Your task to perform on an android device: Add "logitech g910" to the cart on newegg Image 0: 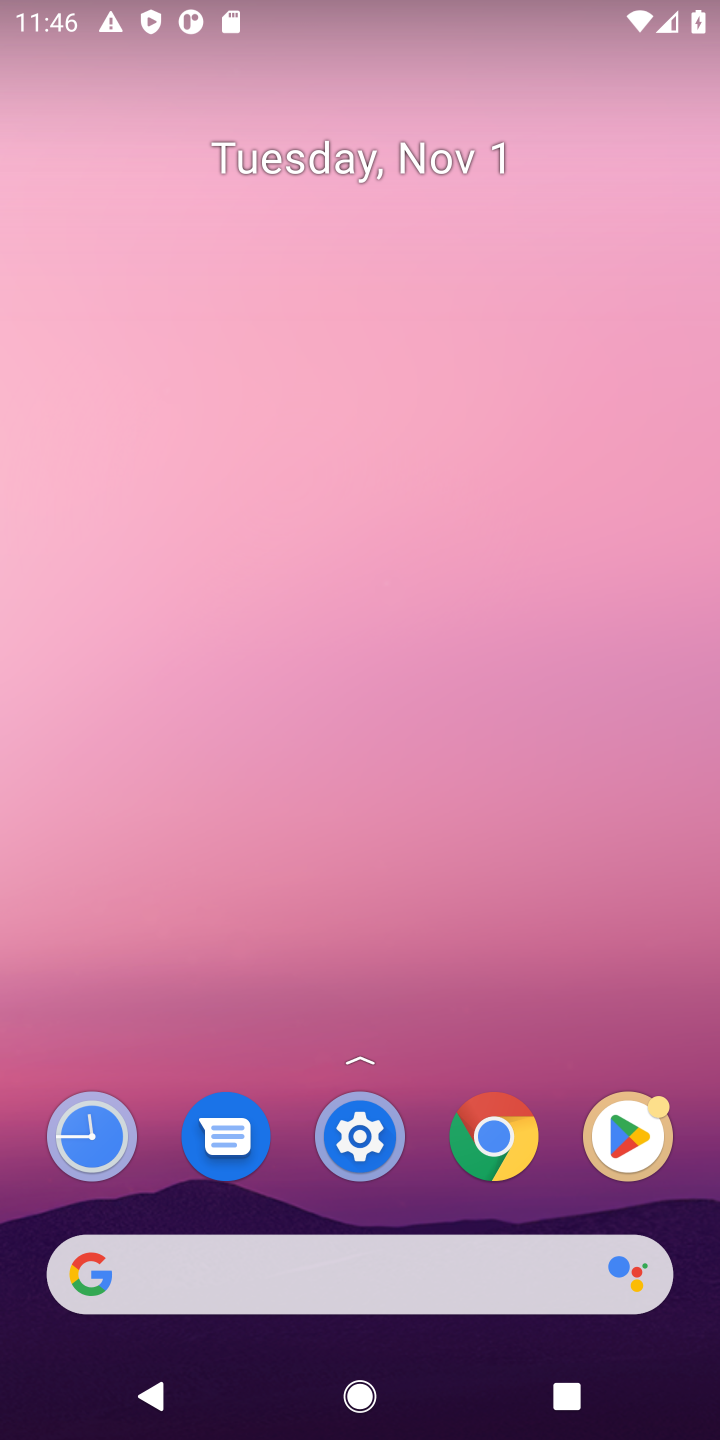
Step 0: click (489, 1134)
Your task to perform on an android device: Add "logitech g910" to the cart on newegg Image 1: 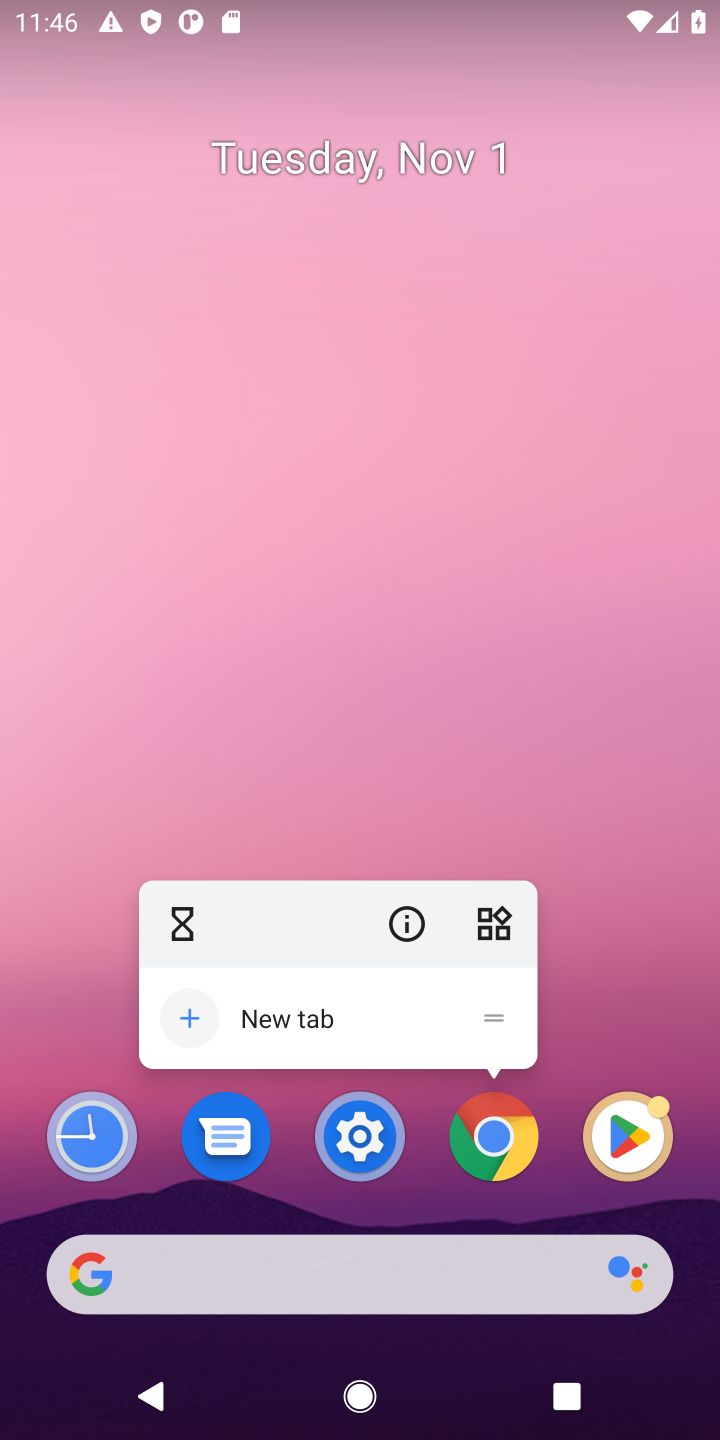
Step 1: click (497, 1169)
Your task to perform on an android device: Add "logitech g910" to the cart on newegg Image 2: 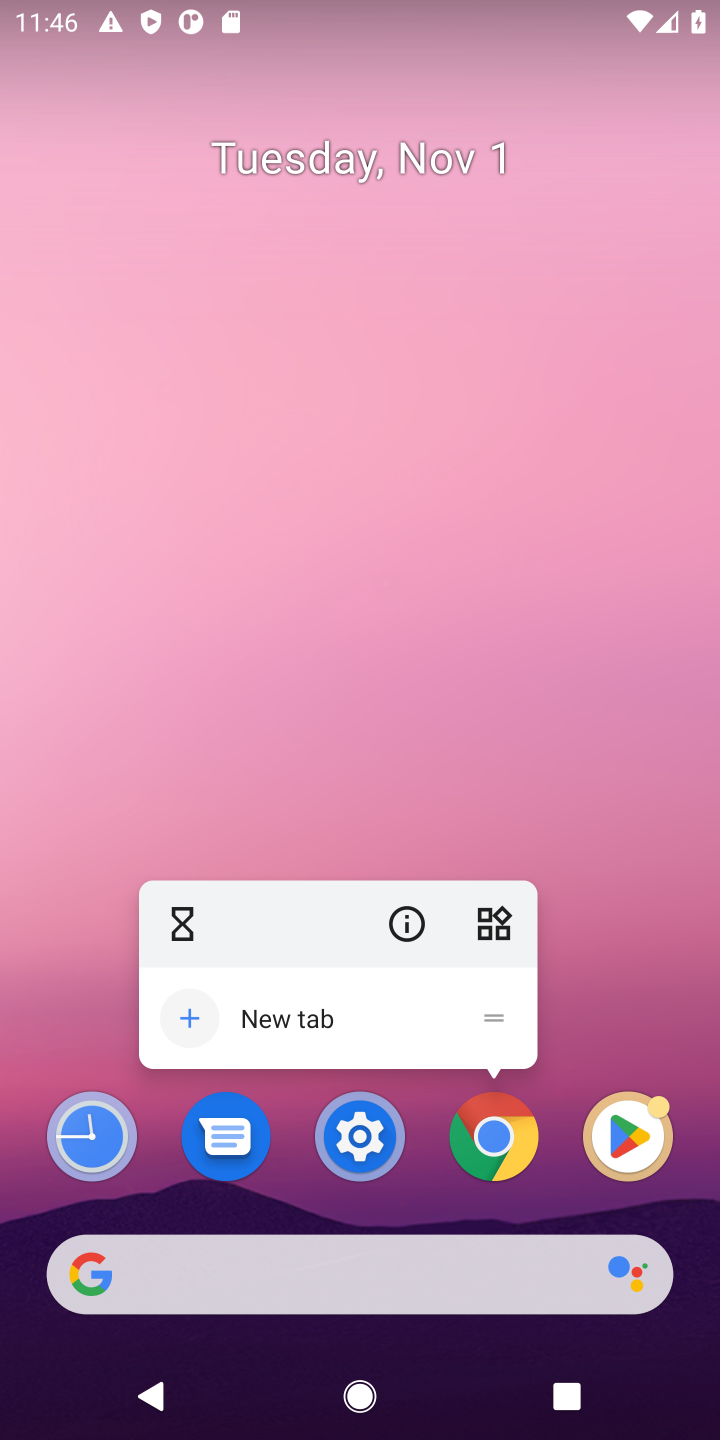
Step 2: click (493, 1139)
Your task to perform on an android device: Add "logitech g910" to the cart on newegg Image 3: 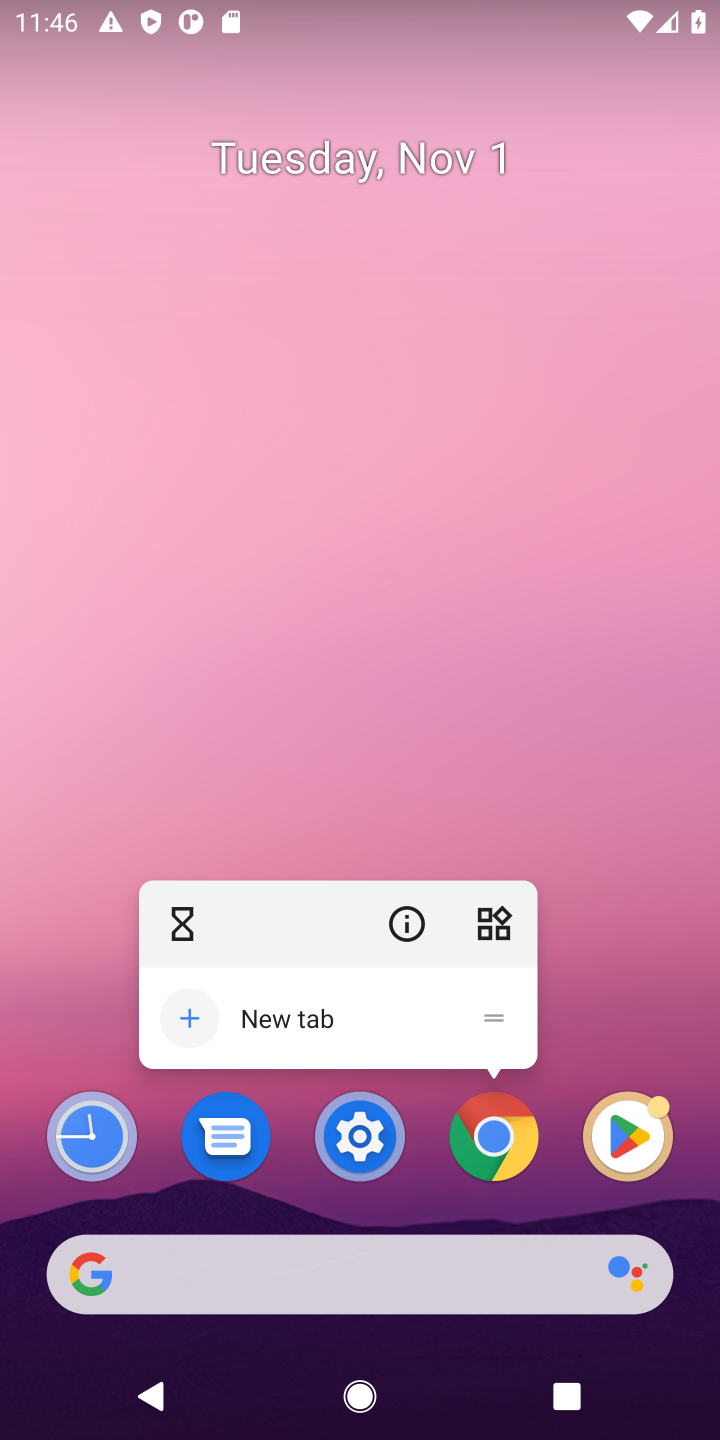
Step 3: click (493, 1160)
Your task to perform on an android device: Add "logitech g910" to the cart on newegg Image 4: 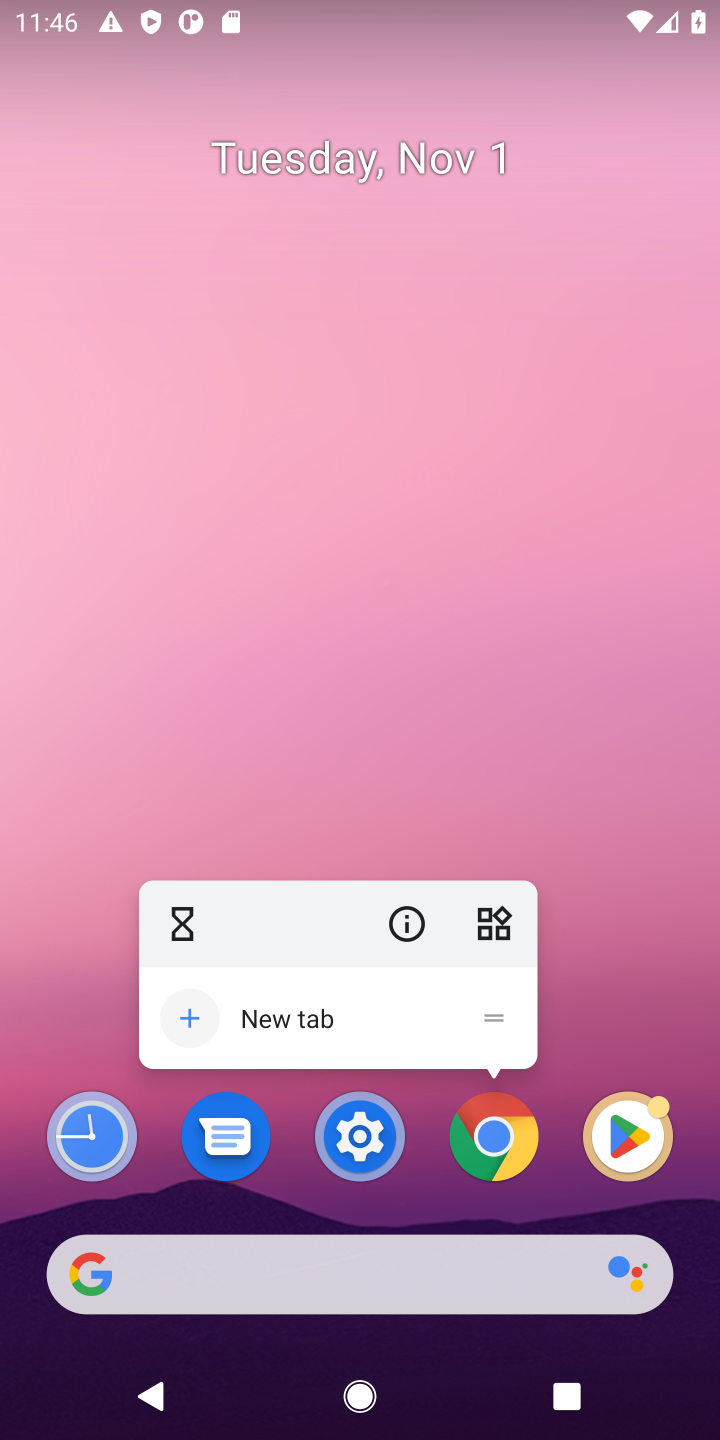
Step 4: click (500, 1147)
Your task to perform on an android device: Add "logitech g910" to the cart on newegg Image 5: 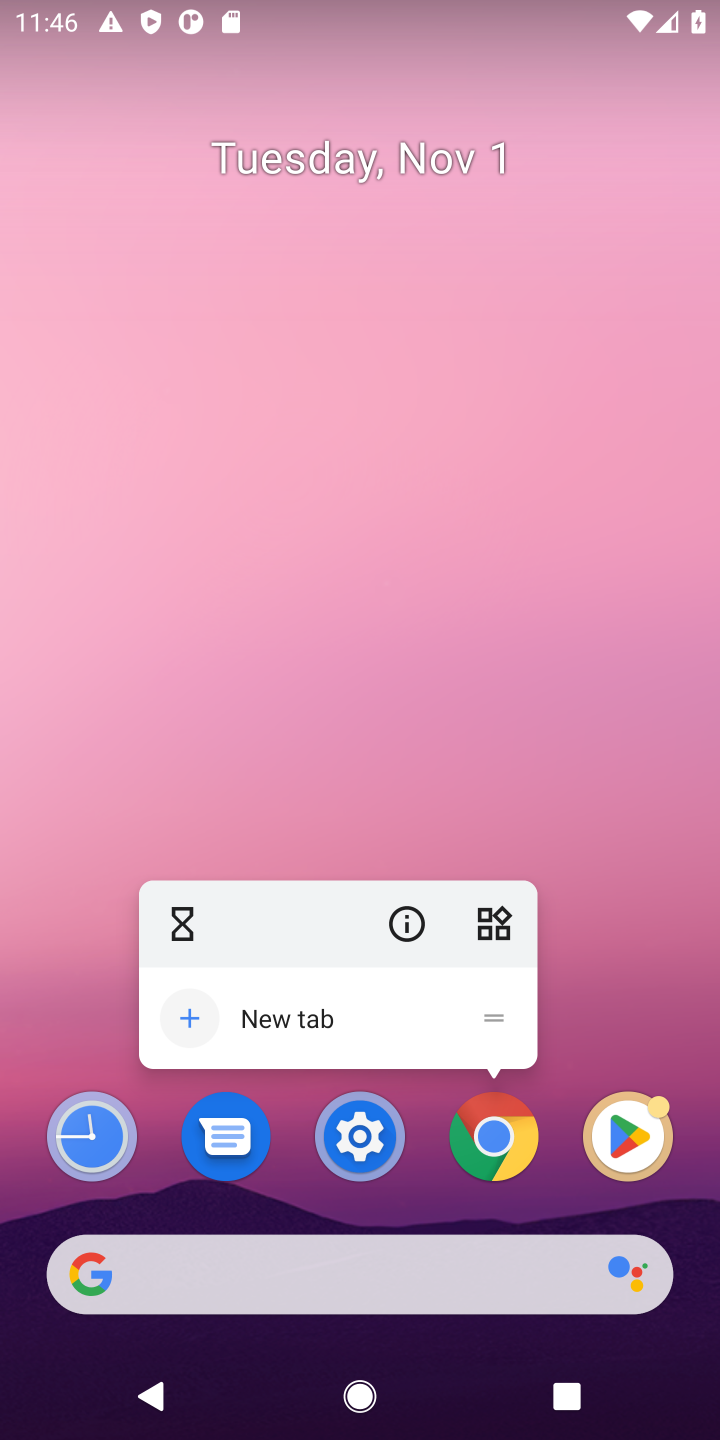
Step 5: click (489, 1153)
Your task to perform on an android device: Add "logitech g910" to the cart on newegg Image 6: 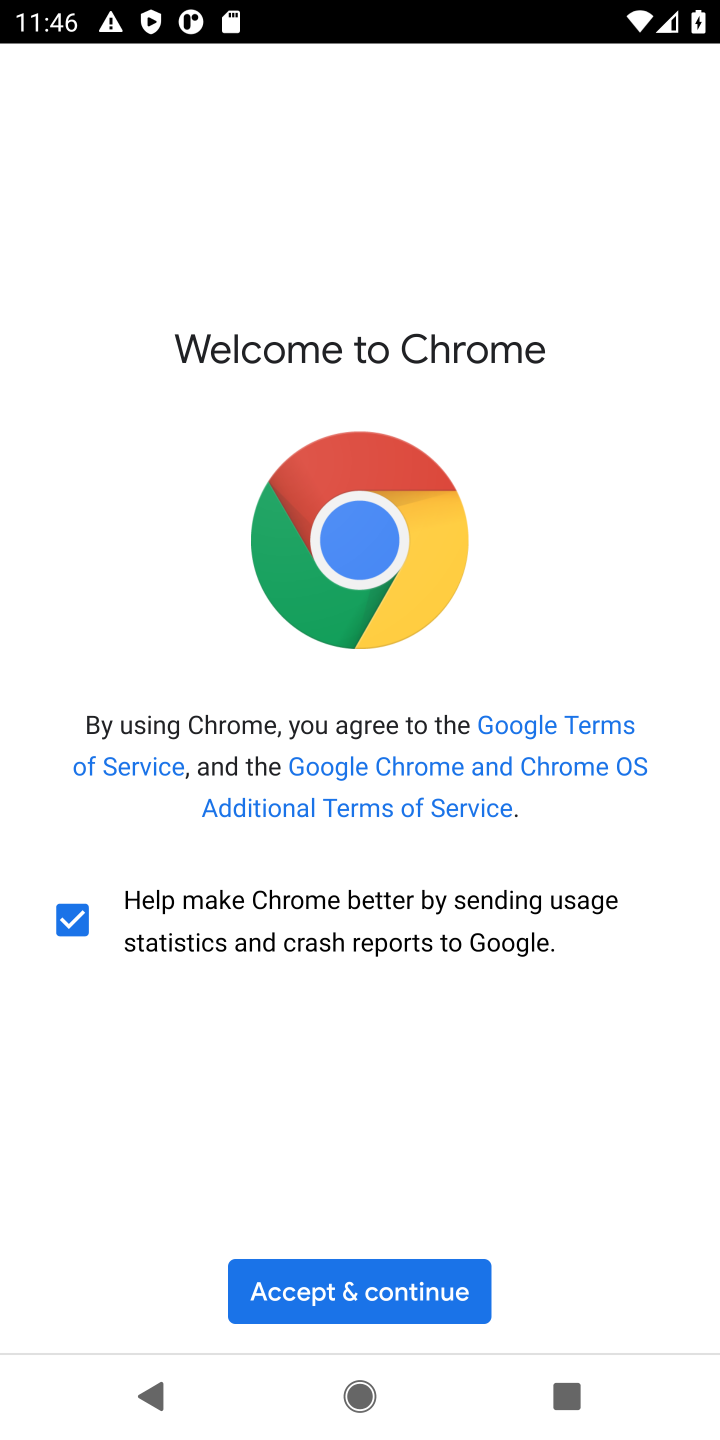
Step 6: click (416, 1255)
Your task to perform on an android device: Add "logitech g910" to the cart on newegg Image 7: 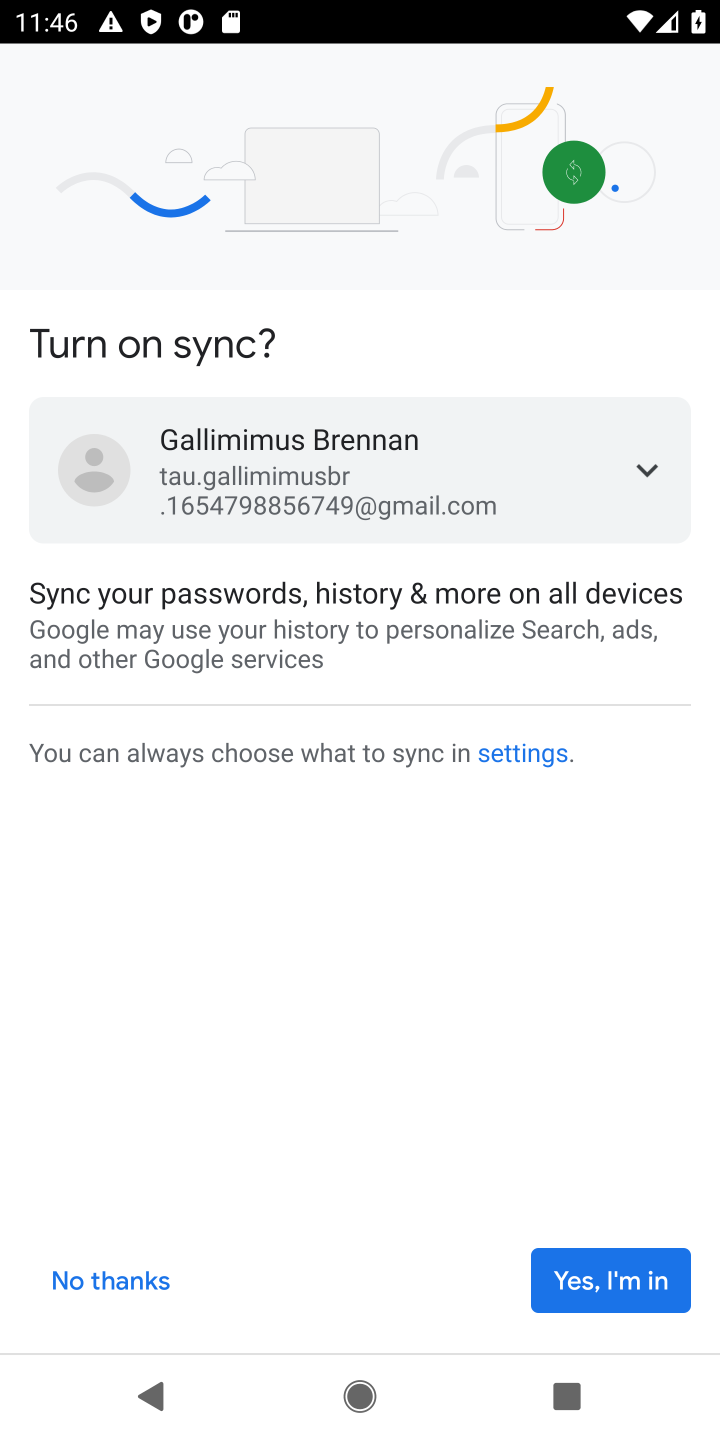
Step 7: click (552, 1265)
Your task to perform on an android device: Add "logitech g910" to the cart on newegg Image 8: 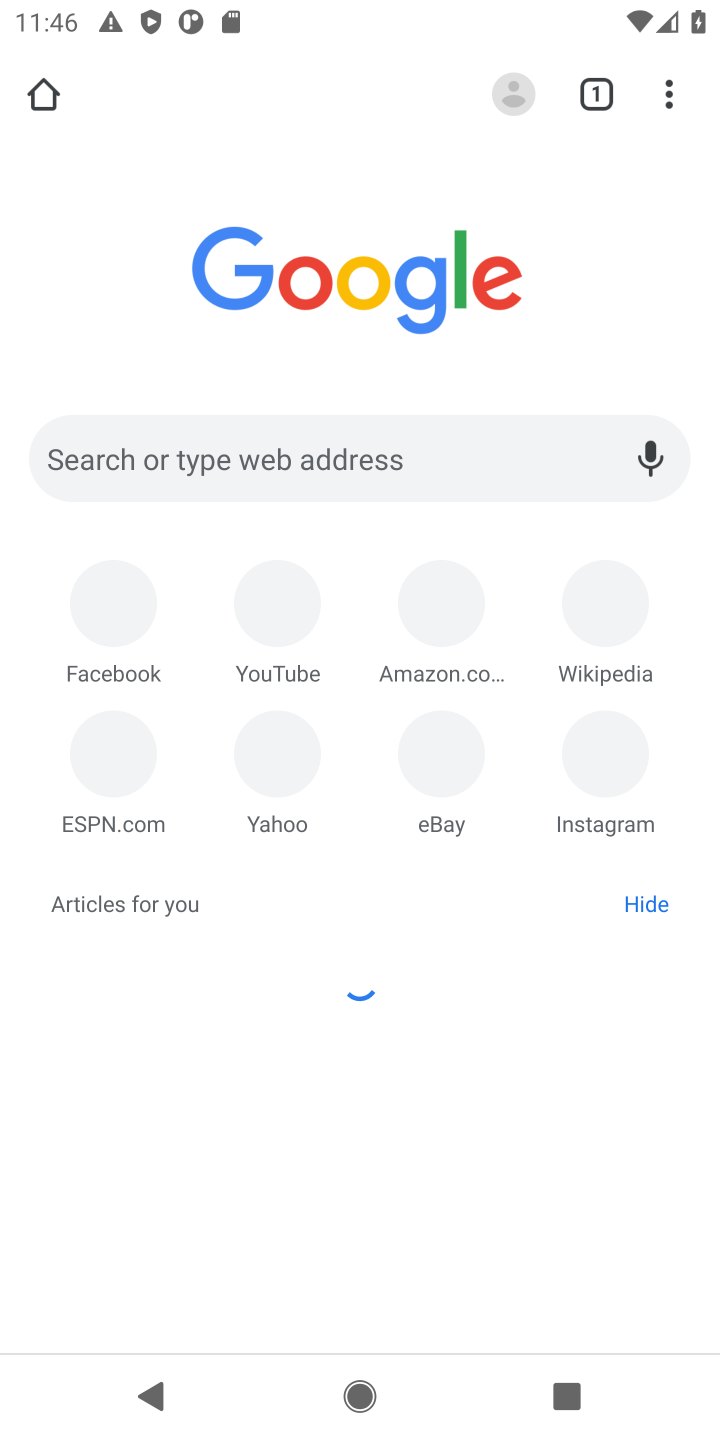
Step 8: click (336, 458)
Your task to perform on an android device: Add "logitech g910" to the cart on newegg Image 9: 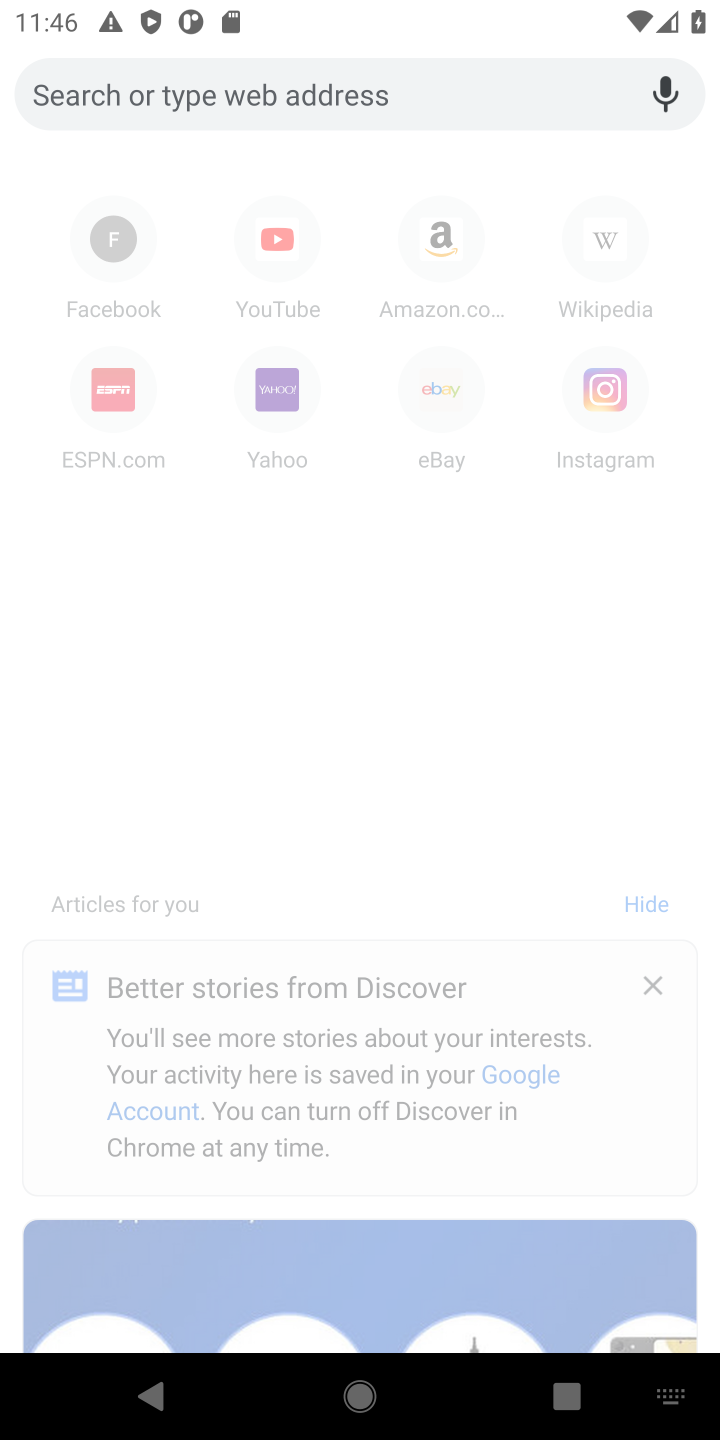
Step 9: press back button
Your task to perform on an android device: Add "logitech g910" to the cart on newegg Image 10: 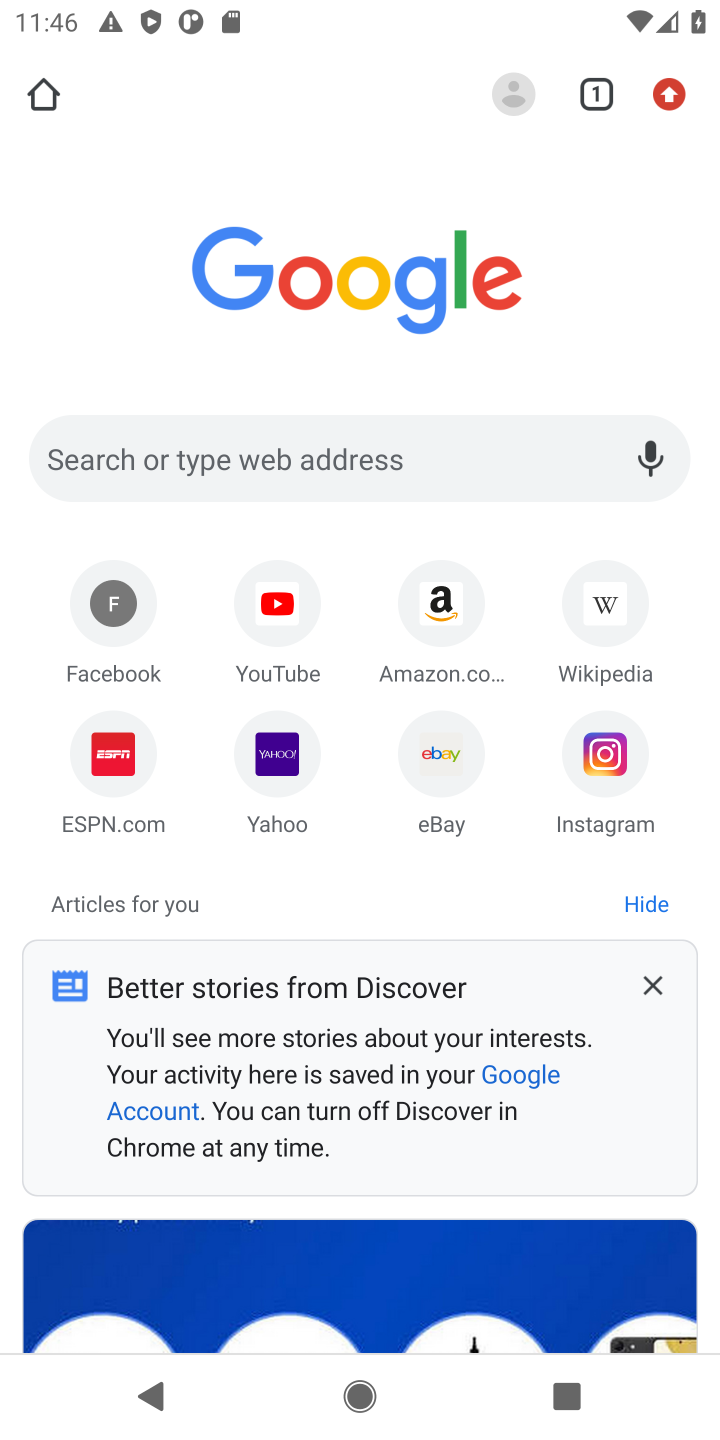
Step 10: click (382, 92)
Your task to perform on an android device: Add "logitech g910" to the cart on newegg Image 11: 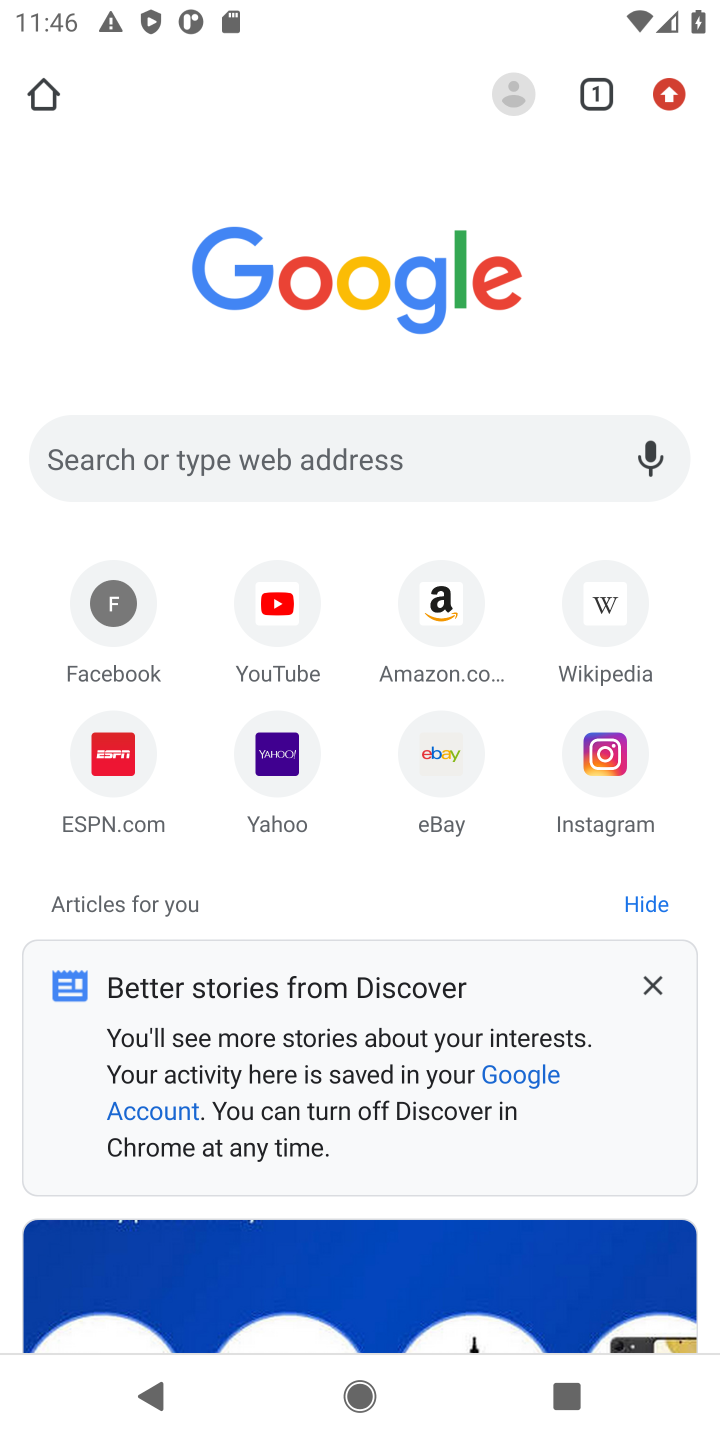
Step 11: click (349, 448)
Your task to perform on an android device: Add "logitech g910" to the cart on newegg Image 12: 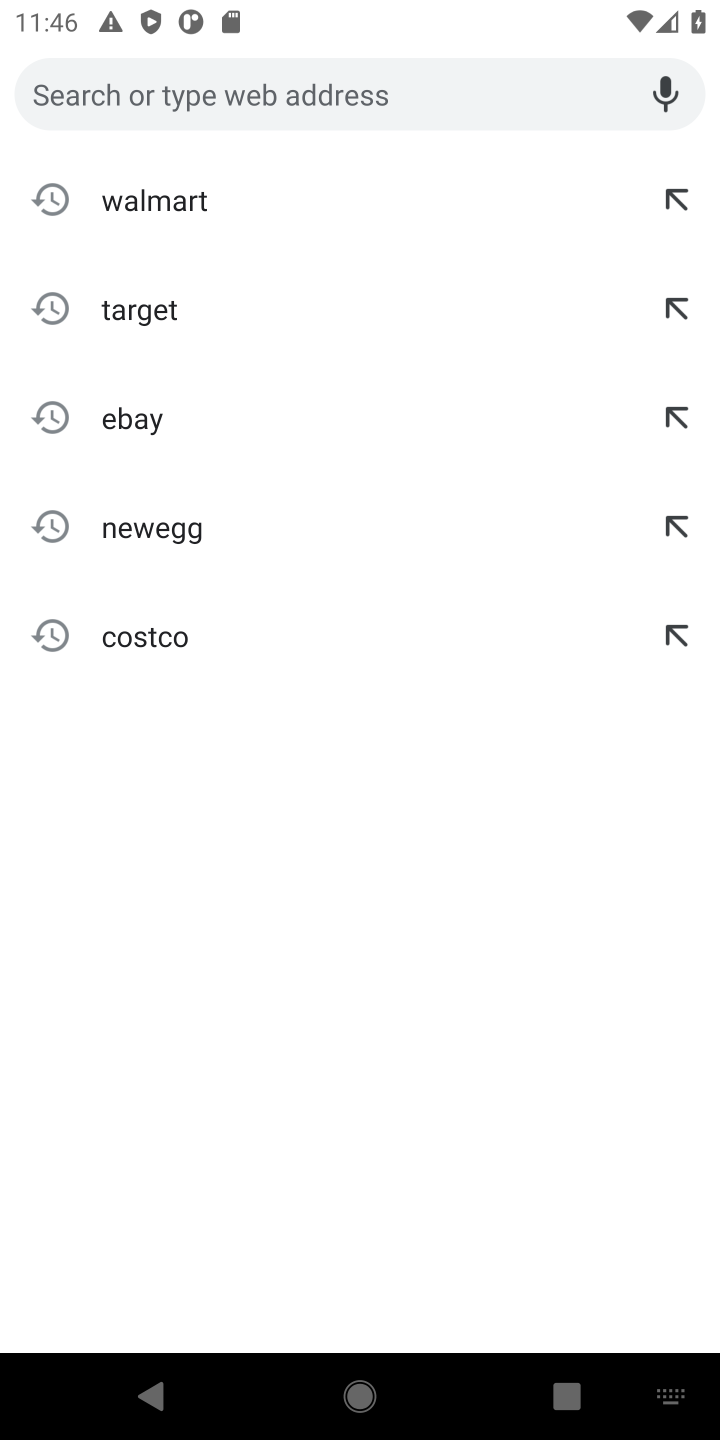
Step 12: click (162, 518)
Your task to perform on an android device: Add "logitech g910" to the cart on newegg Image 13: 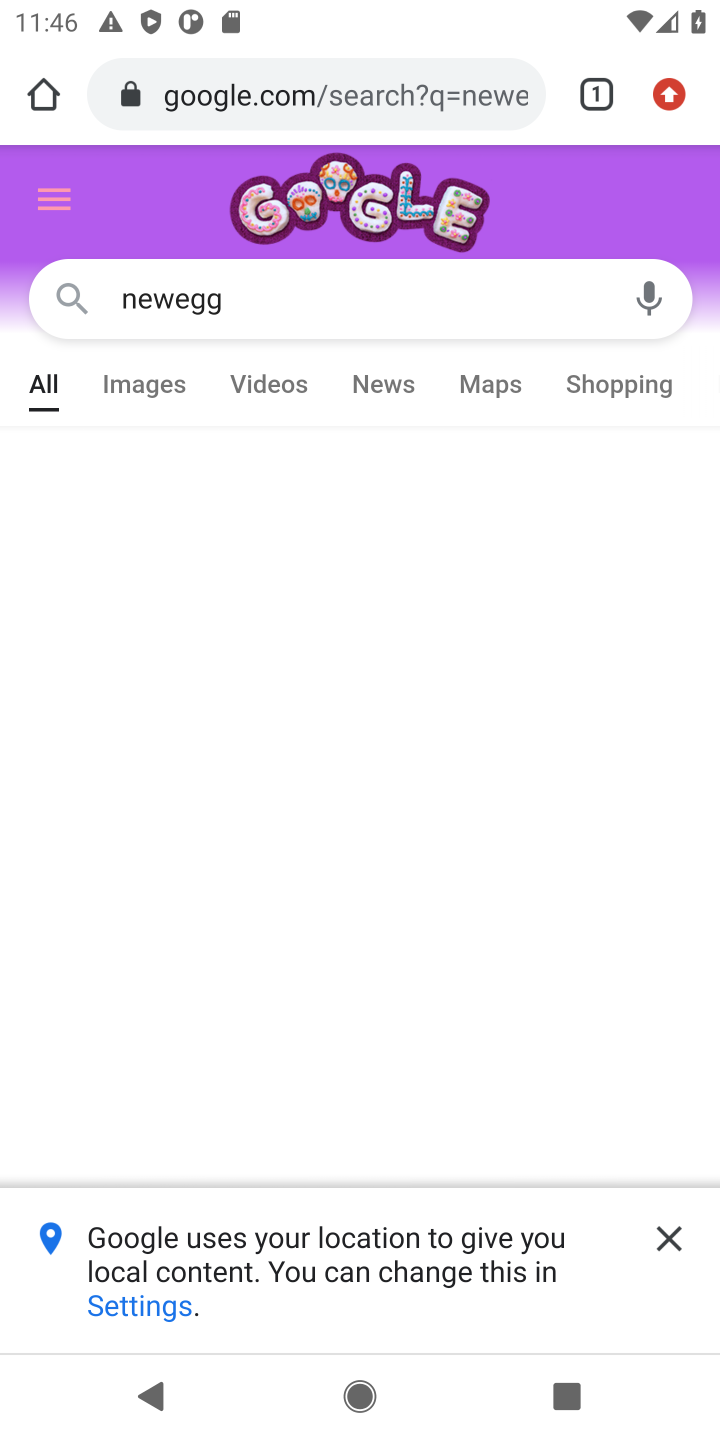
Step 13: click (674, 1210)
Your task to perform on an android device: Add "logitech g910" to the cart on newegg Image 14: 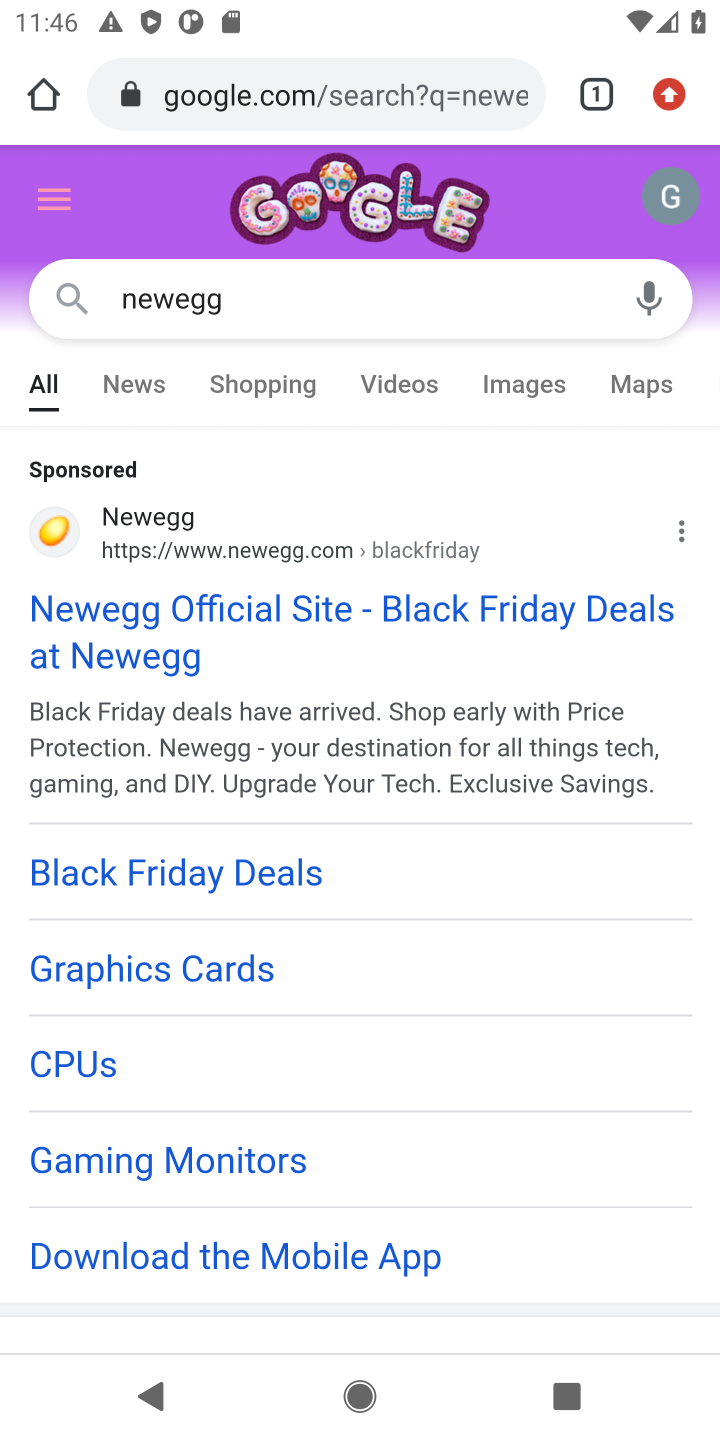
Step 14: click (8, 638)
Your task to perform on an android device: Add "logitech g910" to the cart on newegg Image 15: 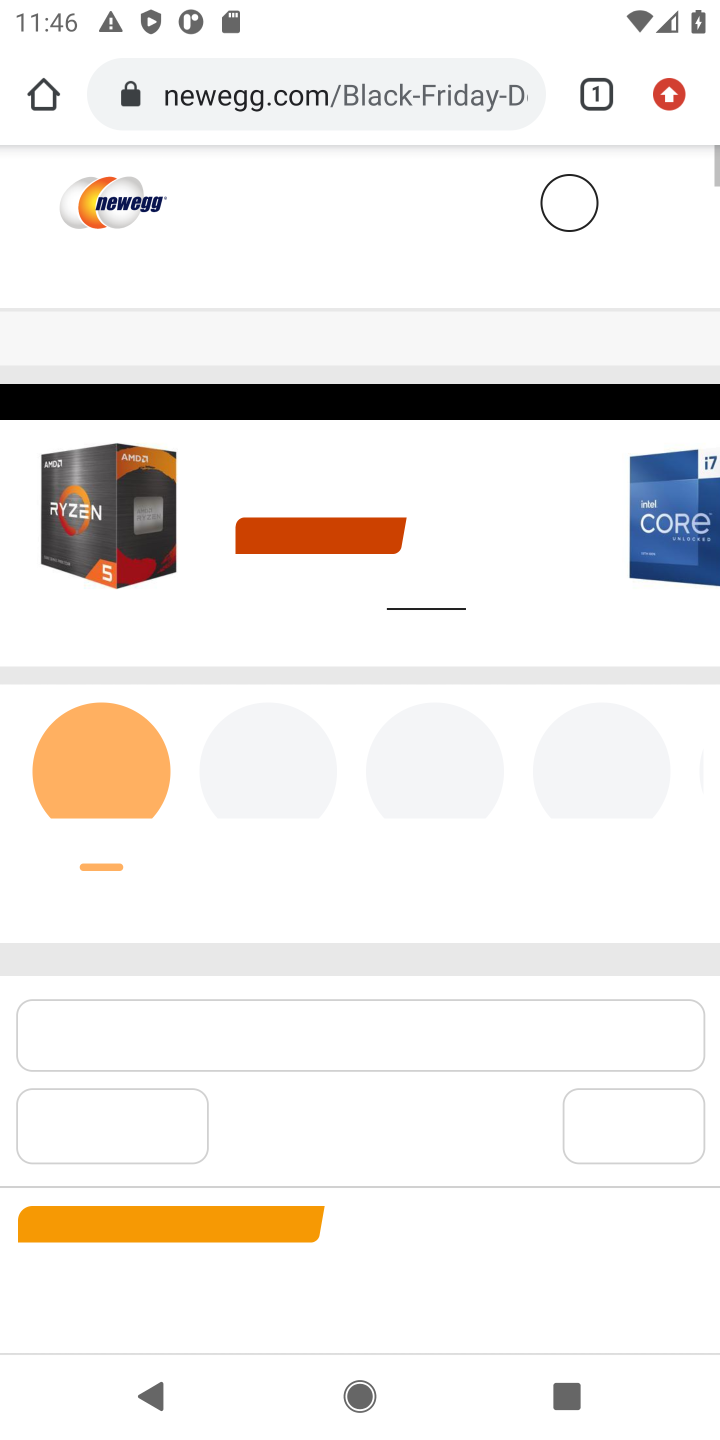
Step 15: click (145, 621)
Your task to perform on an android device: Add "logitech g910" to the cart on newegg Image 16: 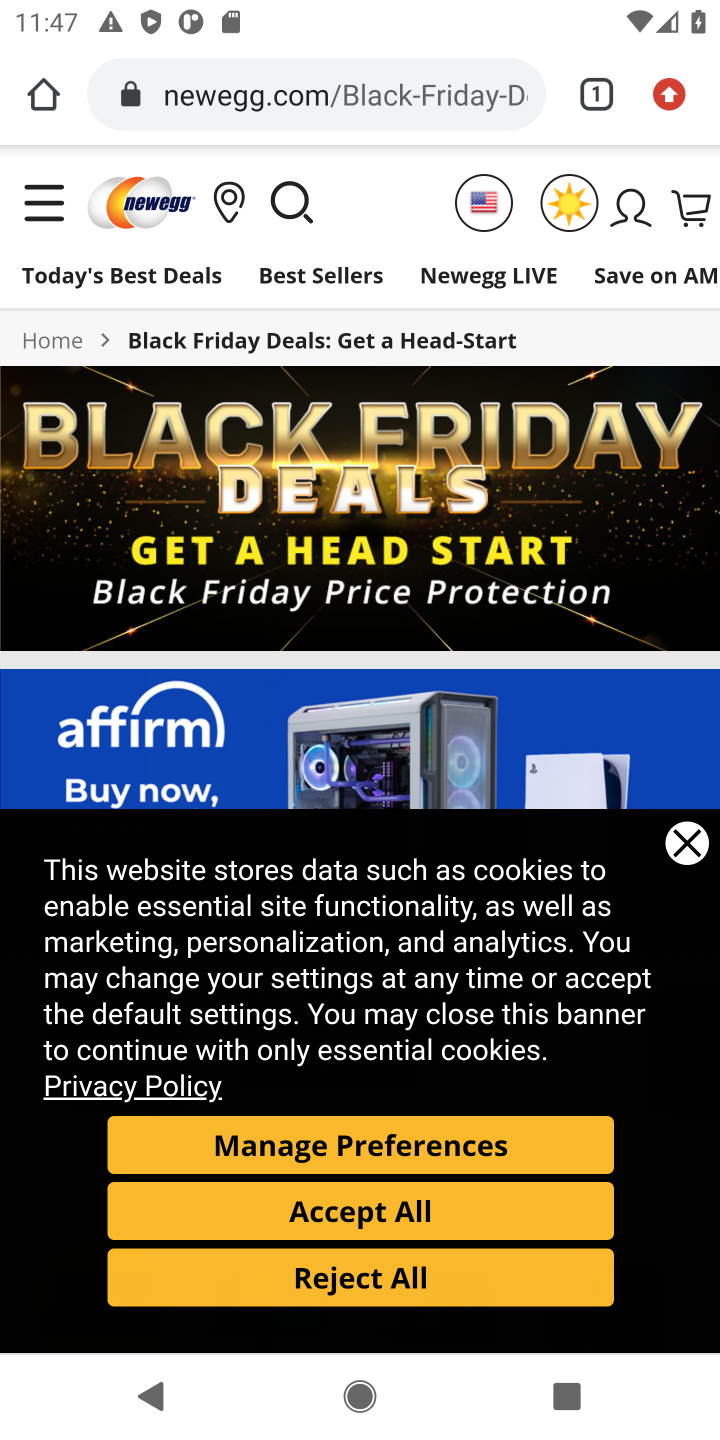
Step 16: click (297, 200)
Your task to perform on an android device: Add "logitech g910" to the cart on newegg Image 17: 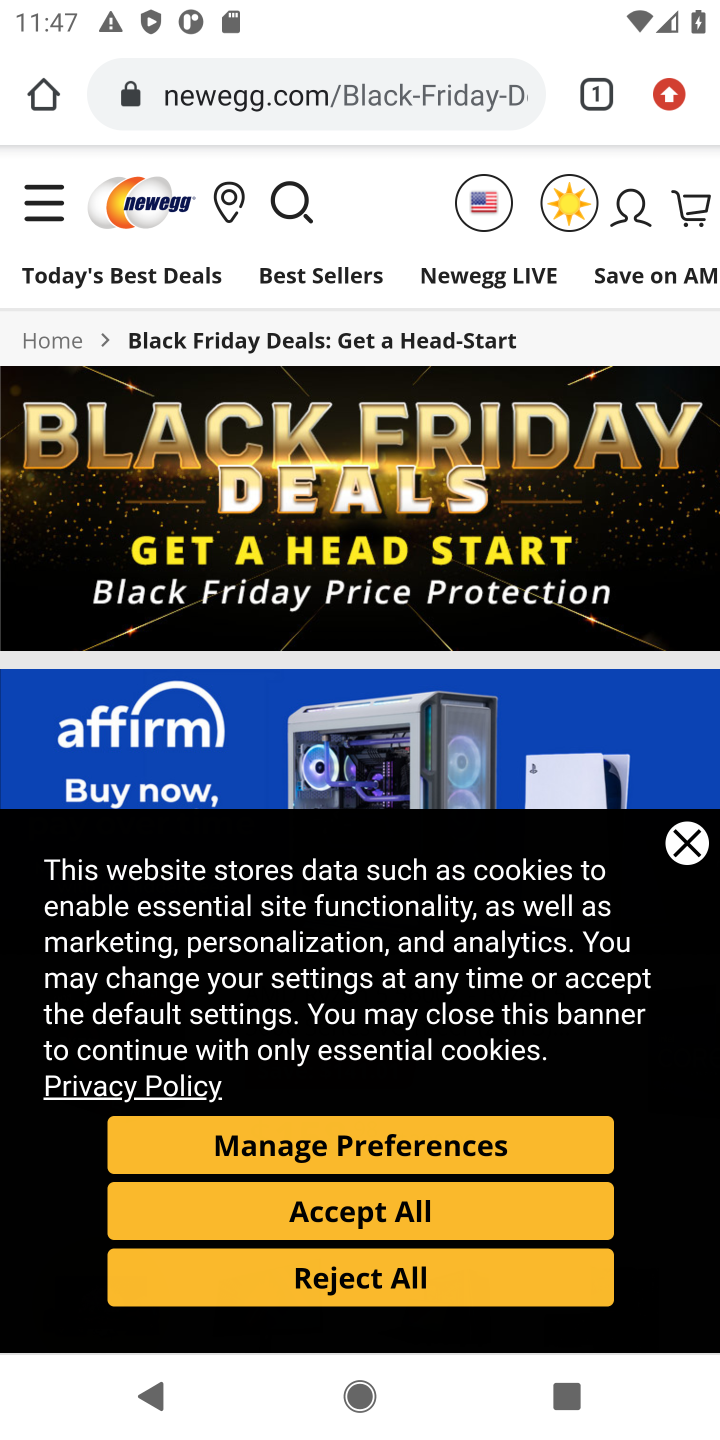
Step 17: click (522, 1276)
Your task to perform on an android device: Add "logitech g910" to the cart on newegg Image 18: 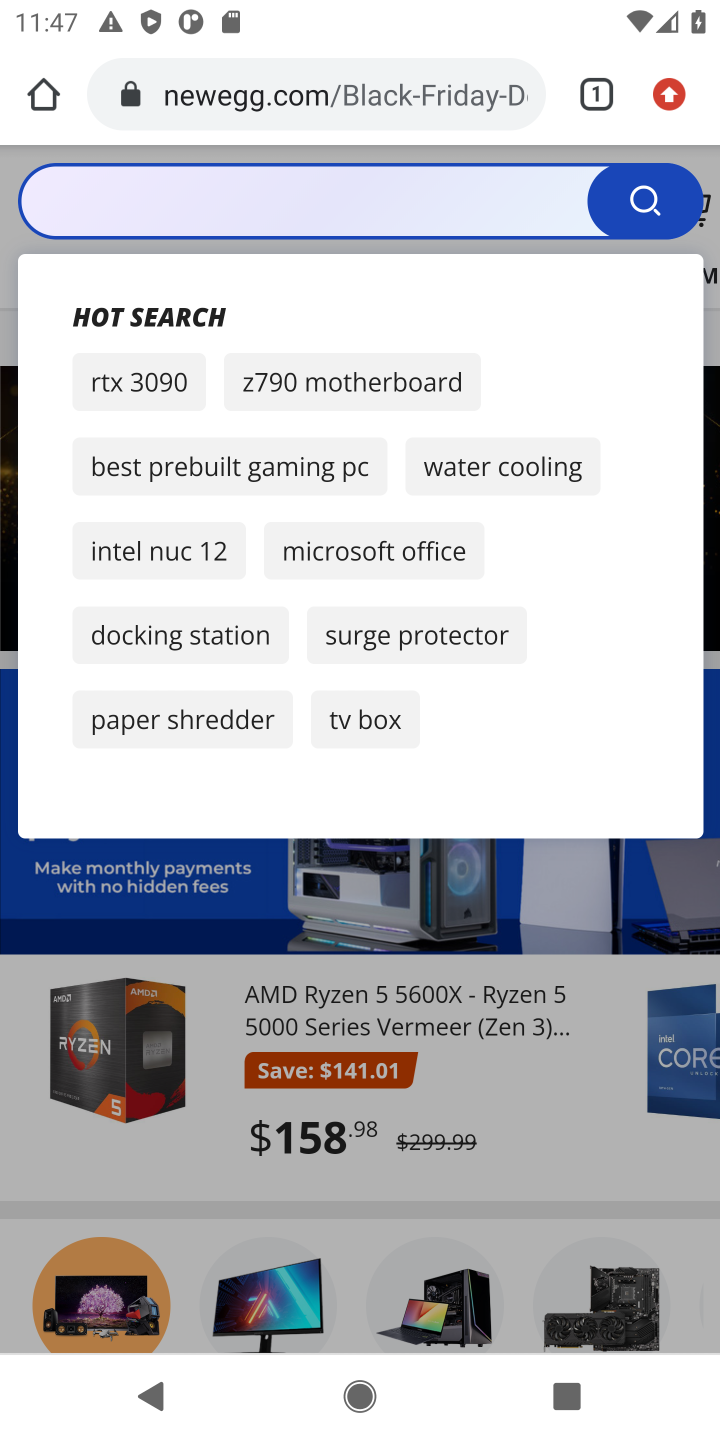
Step 18: click (157, 221)
Your task to perform on an android device: Add "logitech g910" to the cart on newegg Image 19: 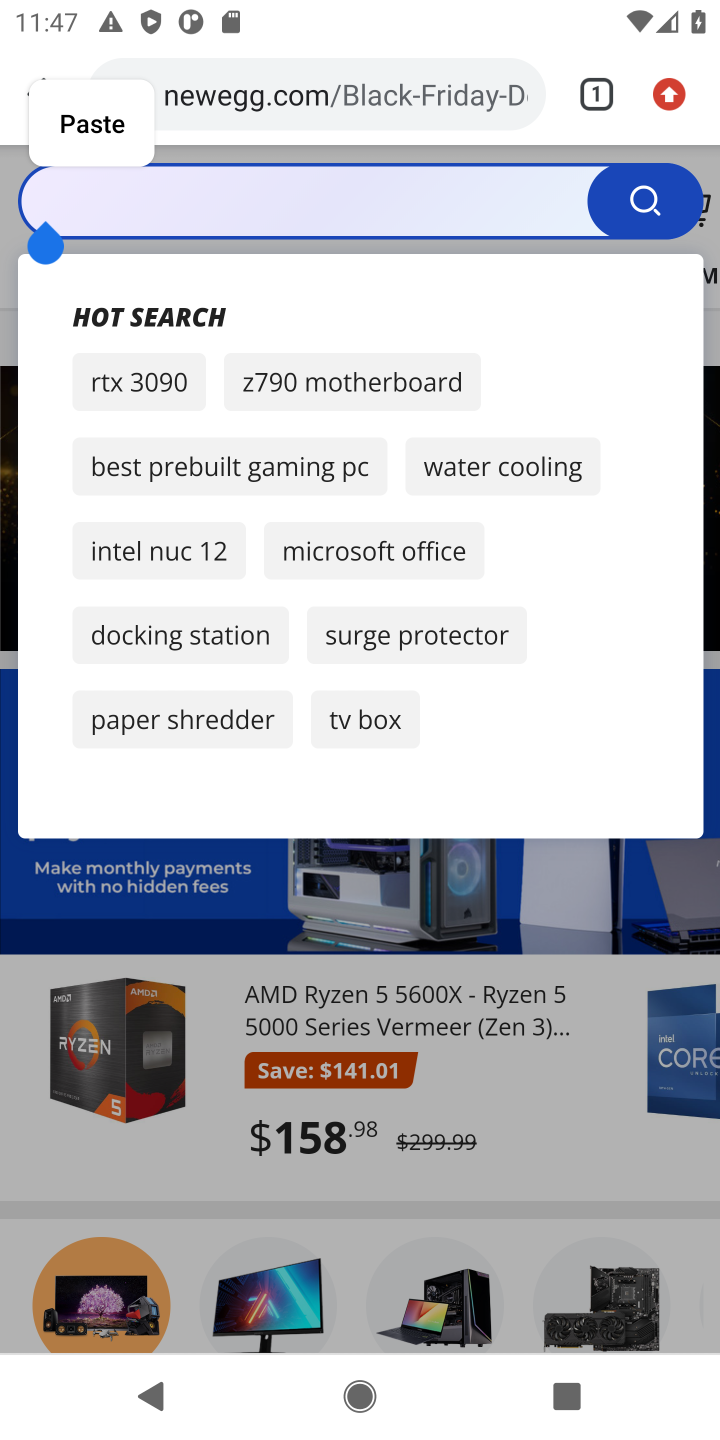
Step 19: type "logitech g910"
Your task to perform on an android device: Add "logitech g910" to the cart on newegg Image 20: 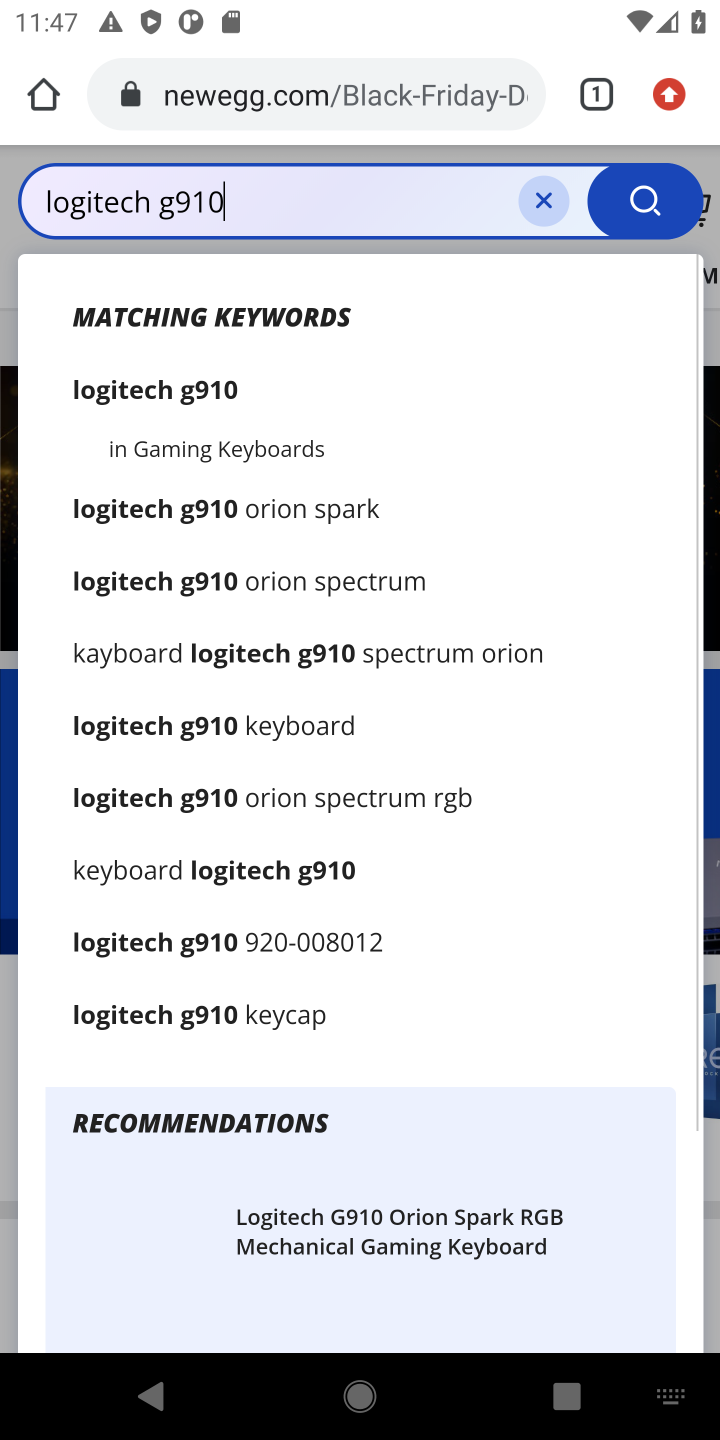
Step 20: click (609, 194)
Your task to perform on an android device: Add "logitech g910" to the cart on newegg Image 21: 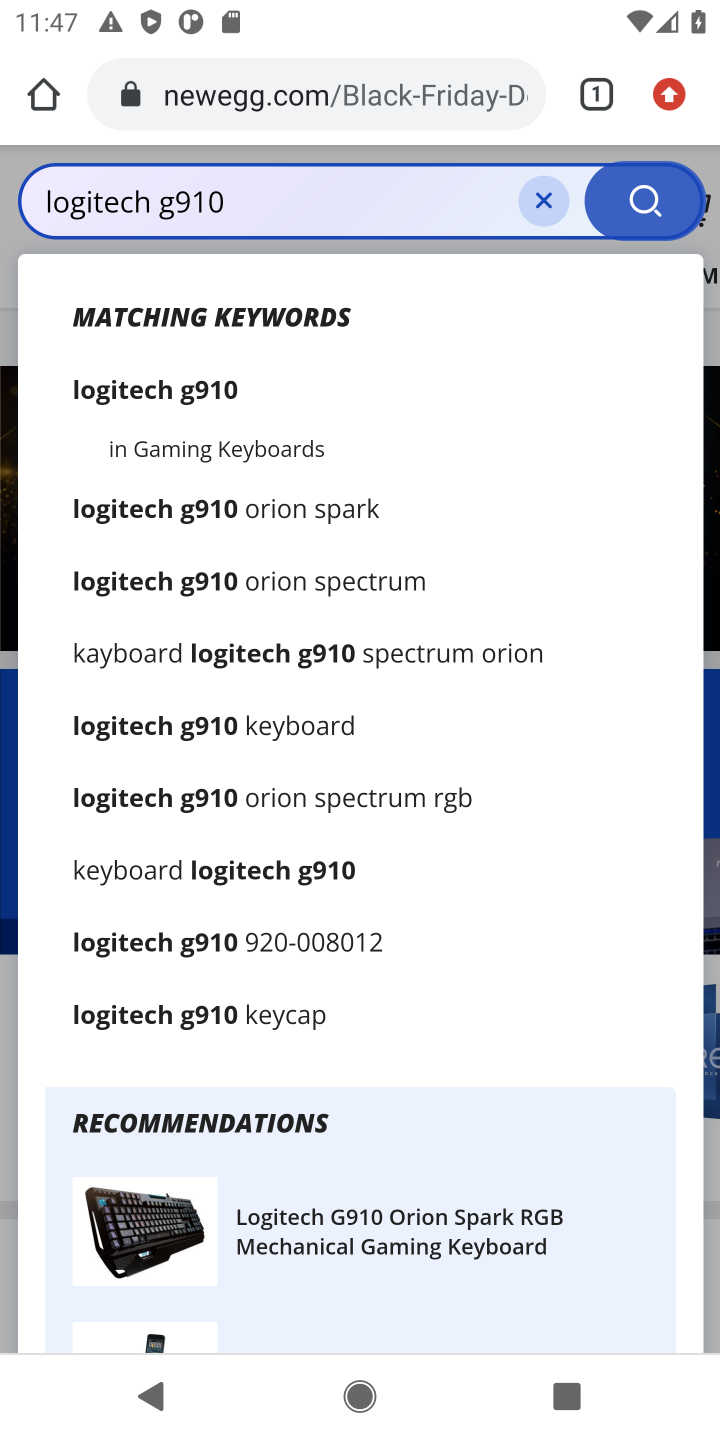
Step 21: click (627, 189)
Your task to perform on an android device: Add "logitech g910" to the cart on newegg Image 22: 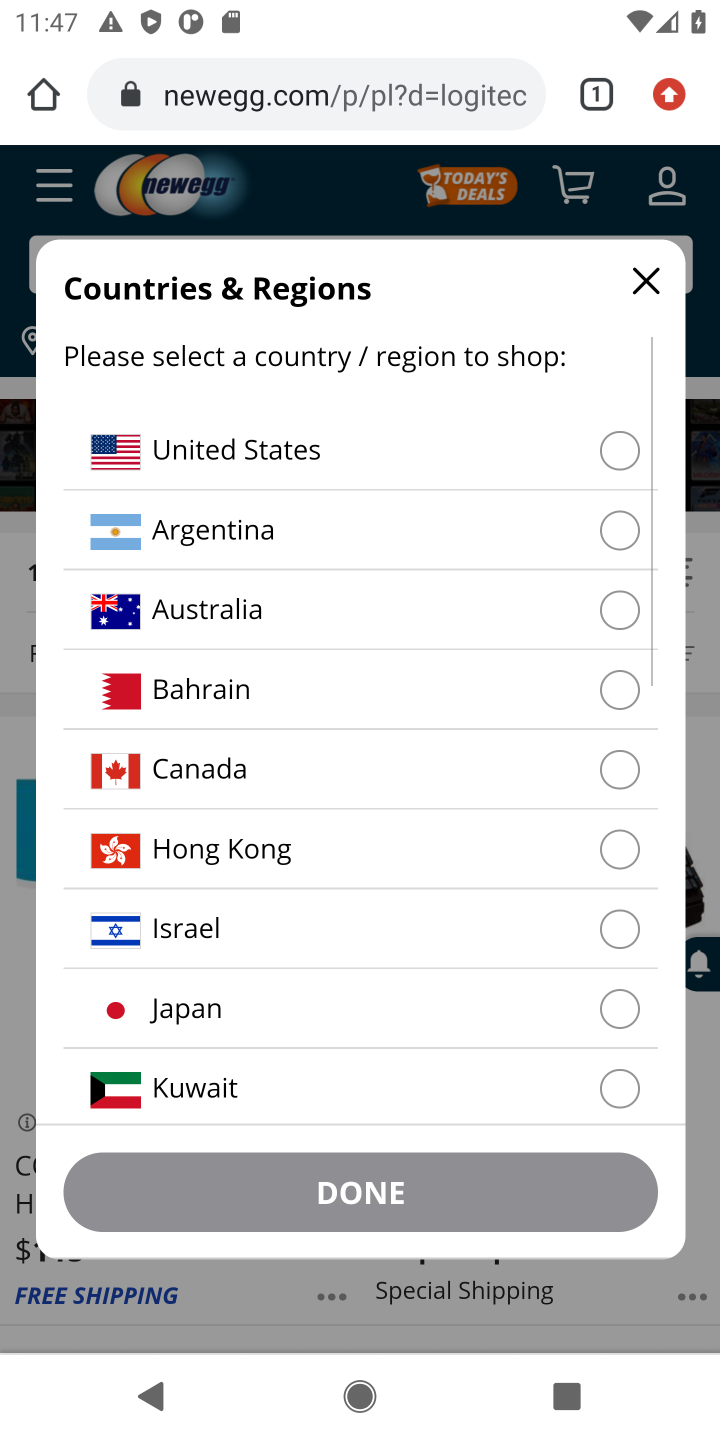
Step 22: click (627, 454)
Your task to perform on an android device: Add "logitech g910" to the cart on newegg Image 23: 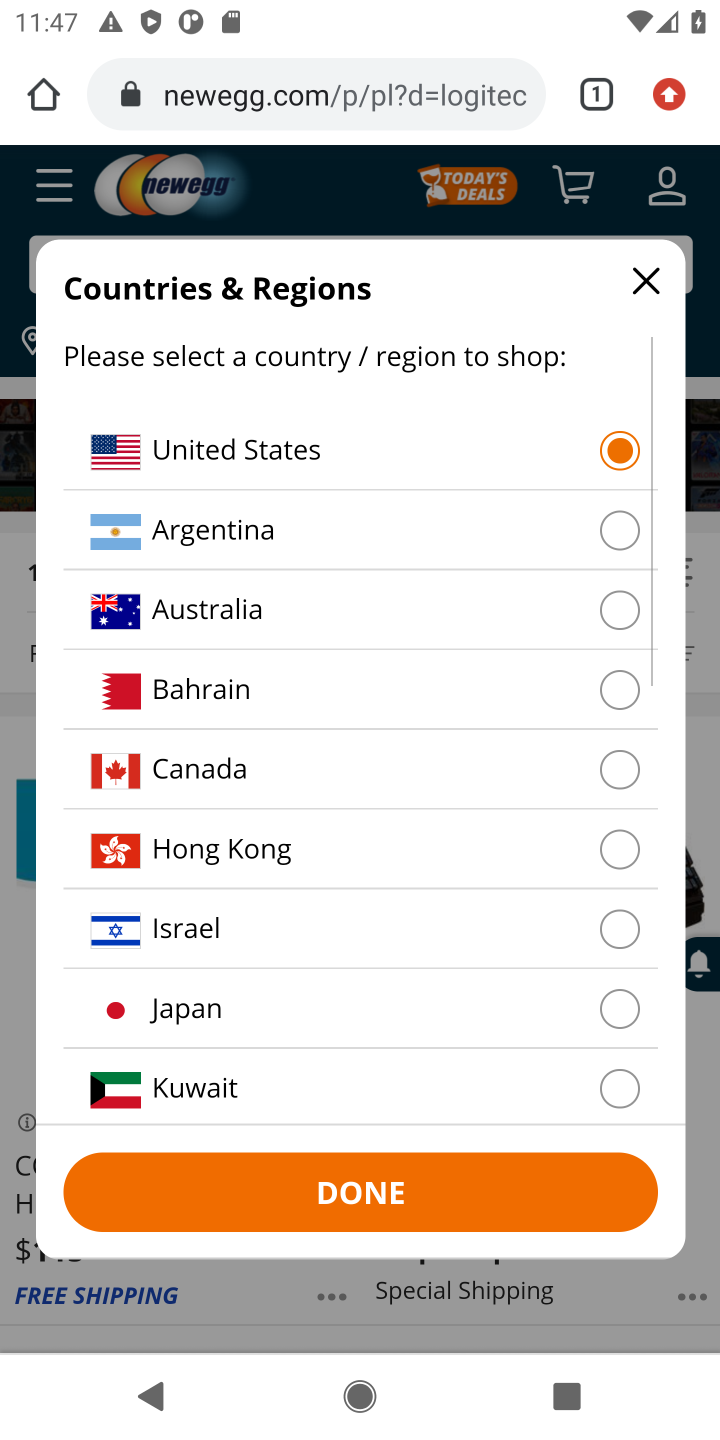
Step 23: click (465, 1204)
Your task to perform on an android device: Add "logitech g910" to the cart on newegg Image 24: 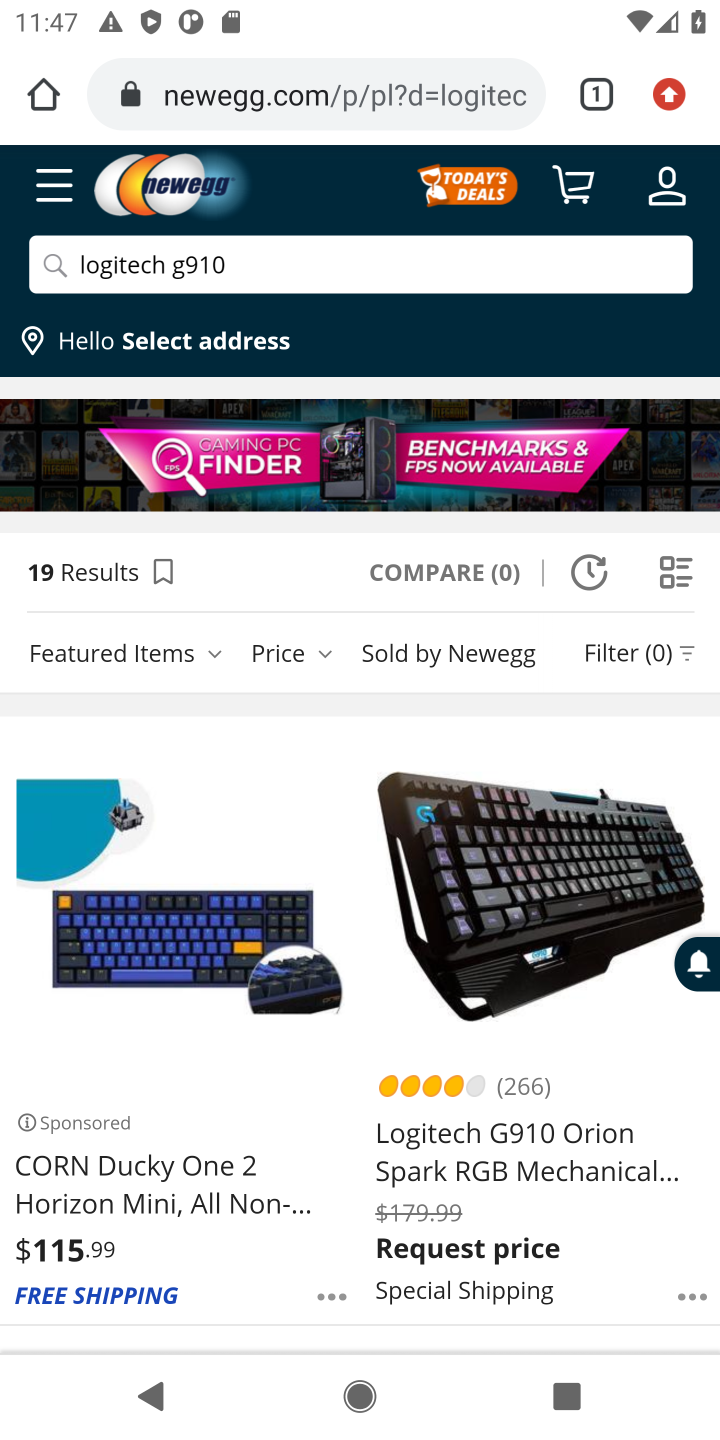
Step 24: click (495, 1141)
Your task to perform on an android device: Add "logitech g910" to the cart on newegg Image 25: 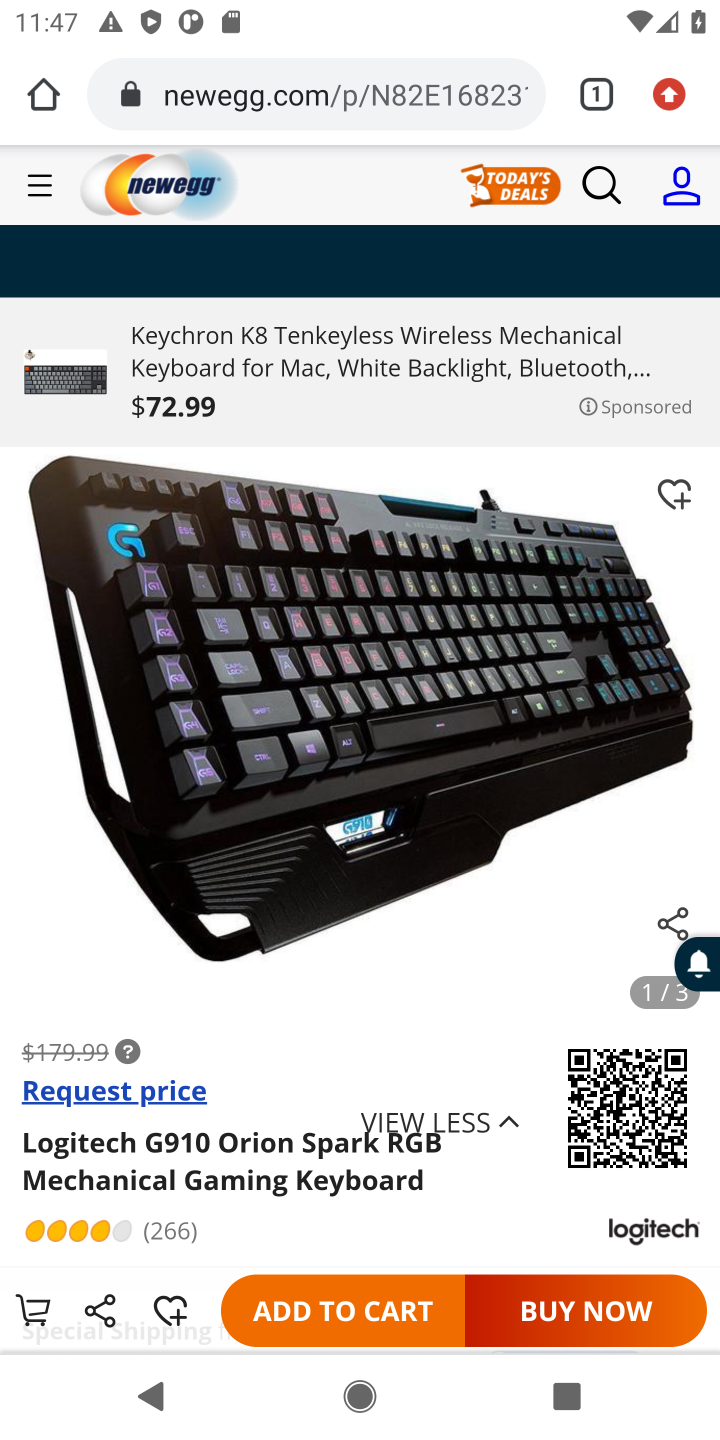
Step 25: click (351, 1311)
Your task to perform on an android device: Add "logitech g910" to the cart on newegg Image 26: 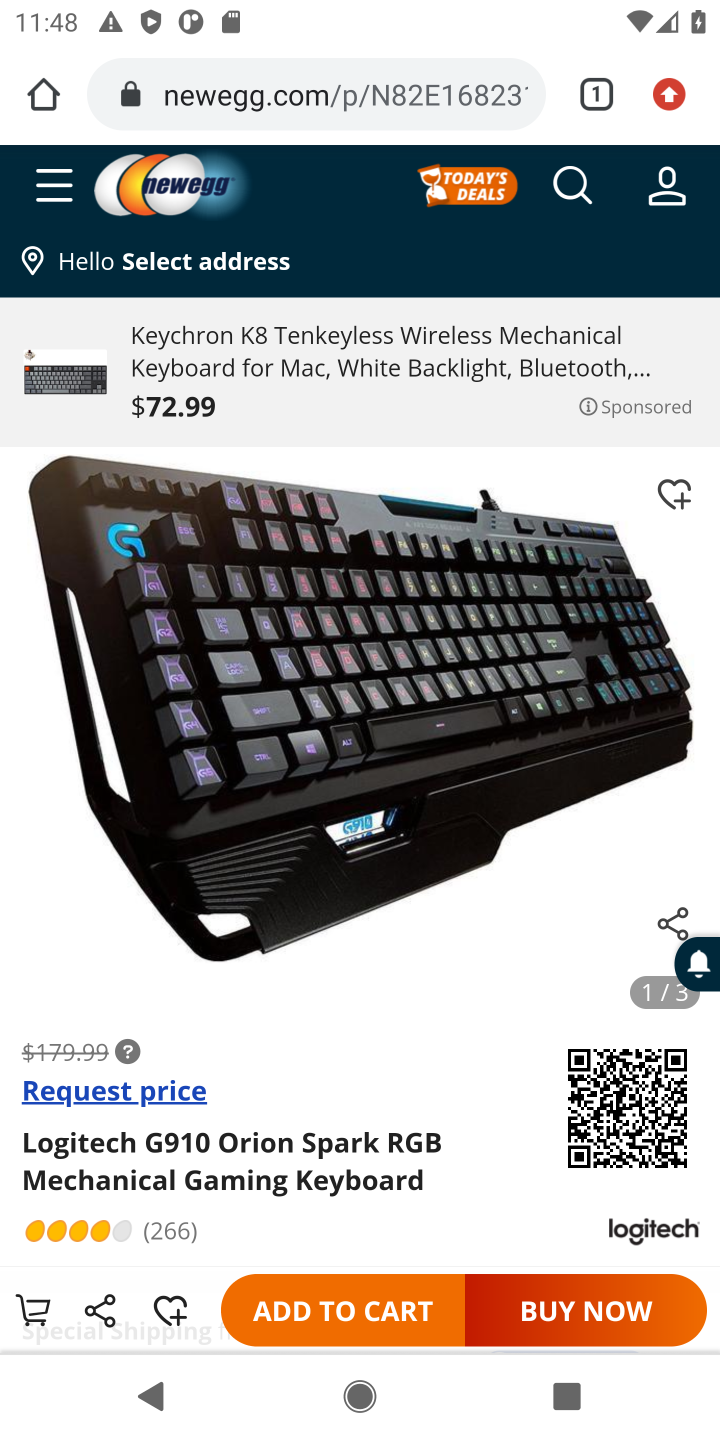
Step 26: click (351, 1311)
Your task to perform on an android device: Add "logitech g910" to the cart on newegg Image 27: 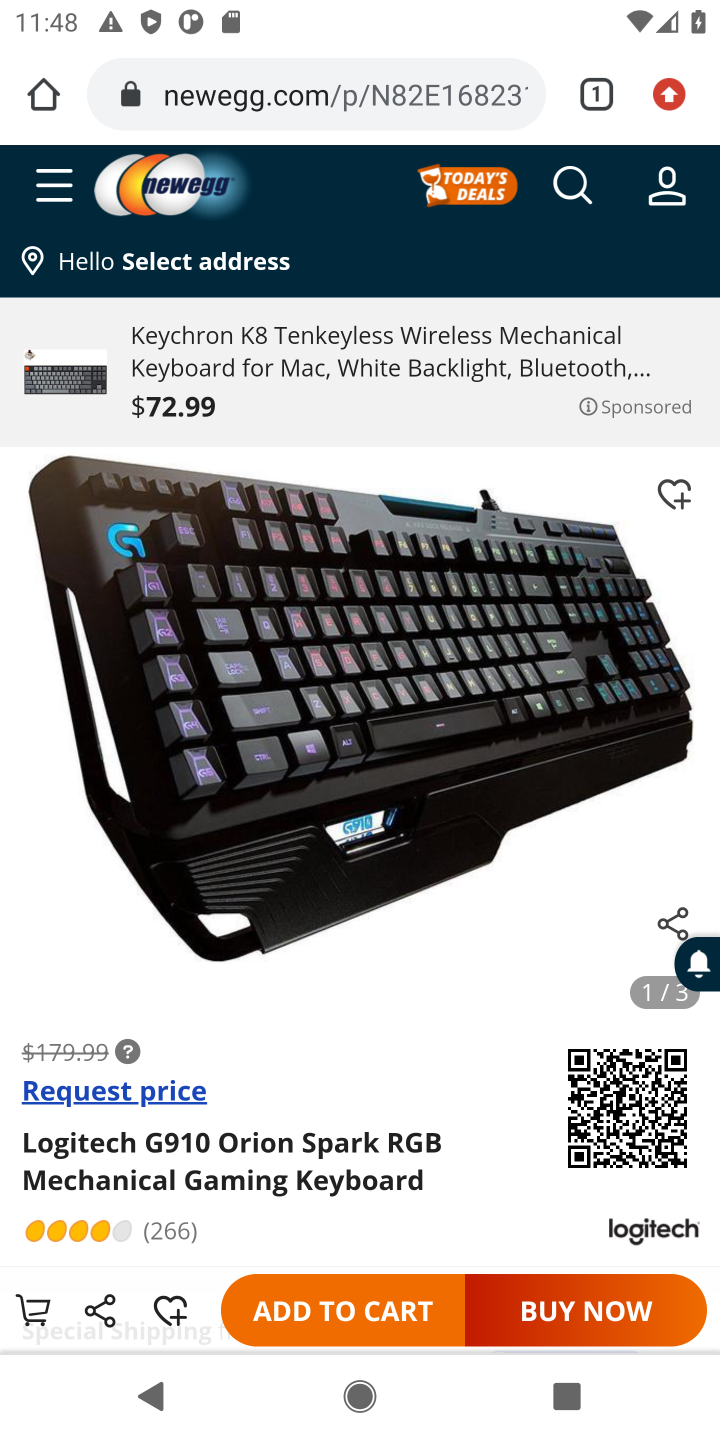
Step 27: click (351, 1311)
Your task to perform on an android device: Add "logitech g910" to the cart on newegg Image 28: 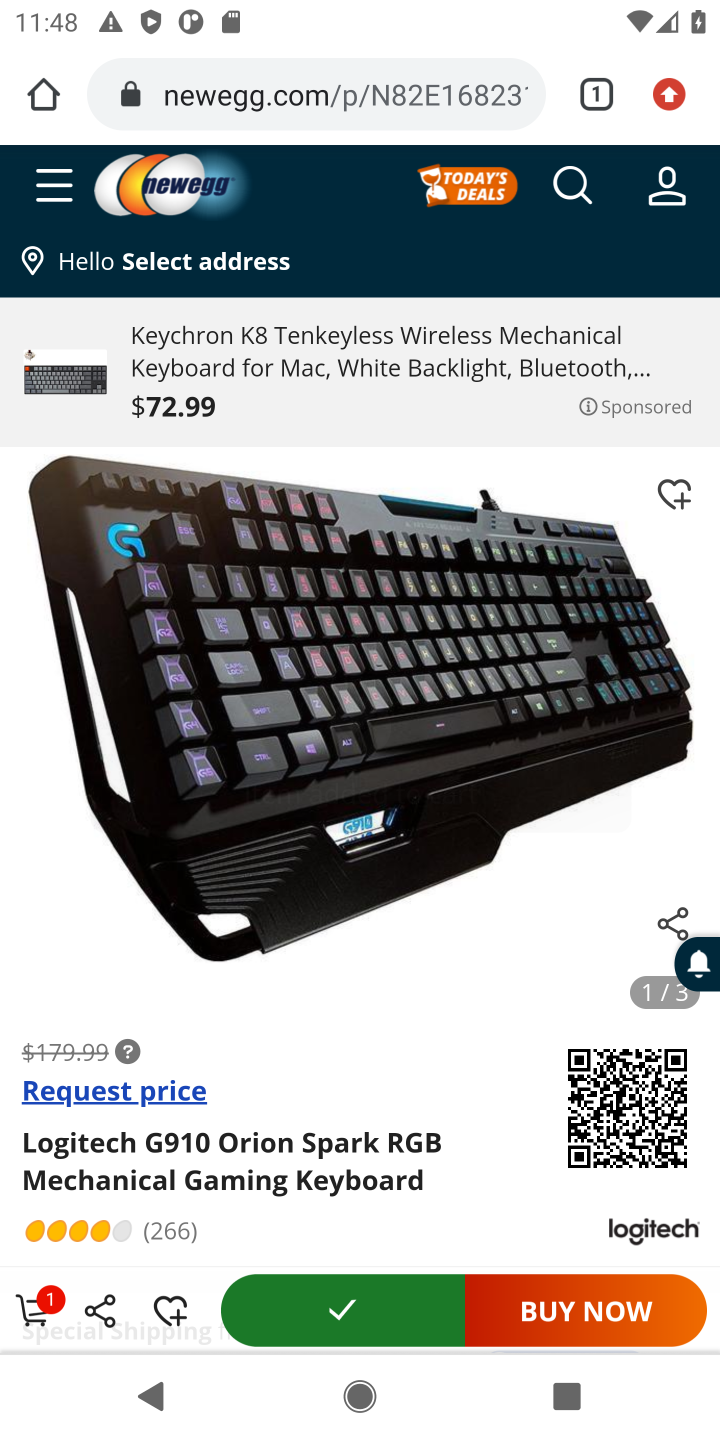
Step 28: click (34, 1304)
Your task to perform on an android device: Add "logitech g910" to the cart on newegg Image 29: 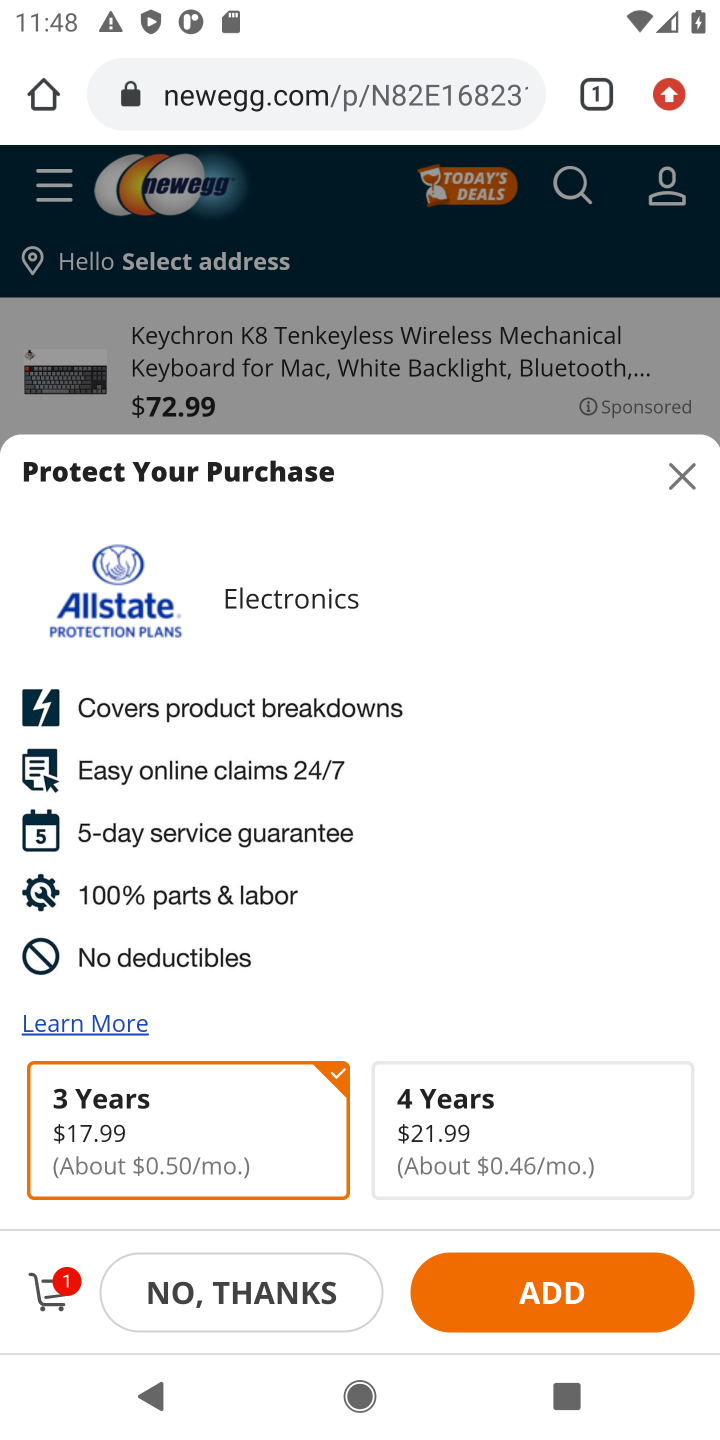
Step 29: click (474, 1278)
Your task to perform on an android device: Add "logitech g910" to the cart on newegg Image 30: 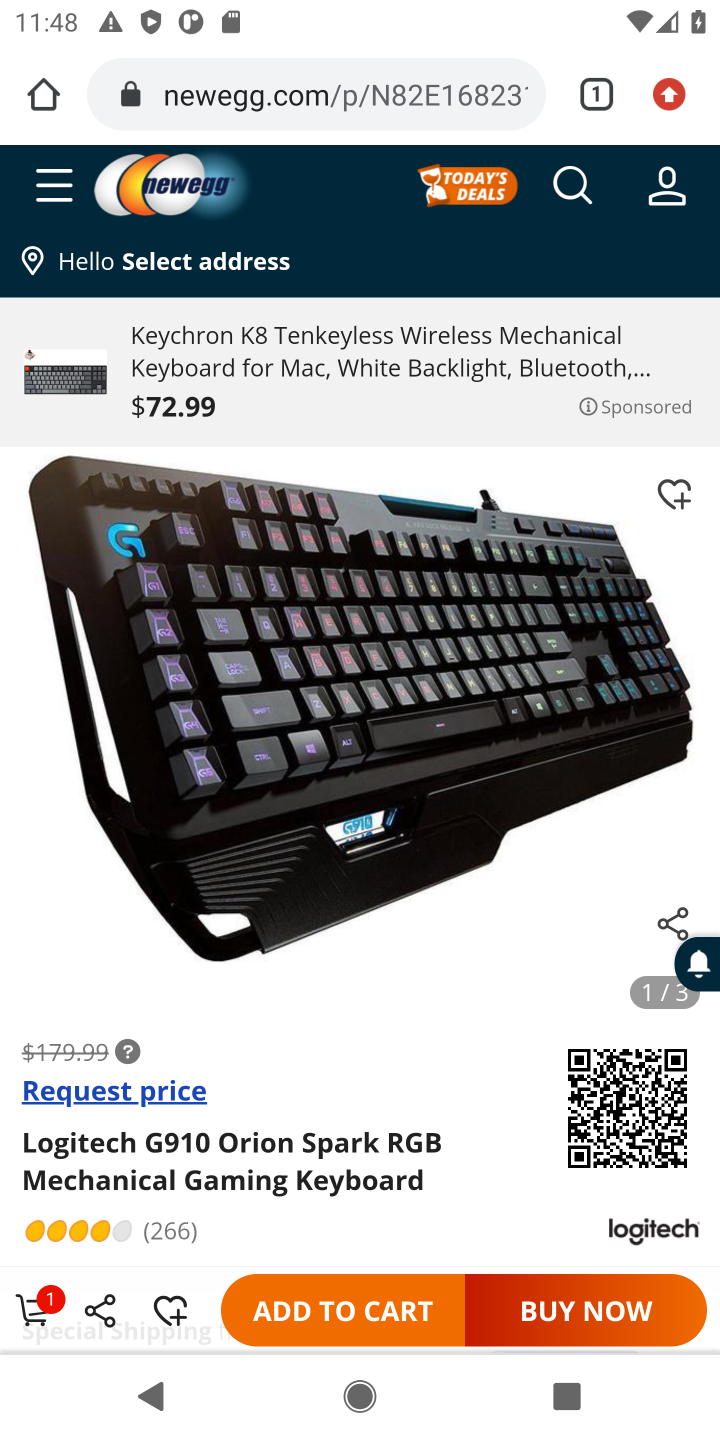
Step 30: task complete